Your task to perform on an android device: see creations saved in the google photos Image 0: 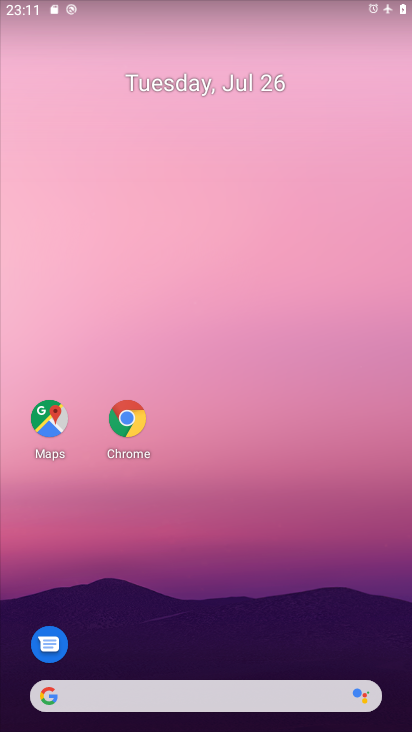
Step 0: drag from (243, 609) to (257, 218)
Your task to perform on an android device: see creations saved in the google photos Image 1: 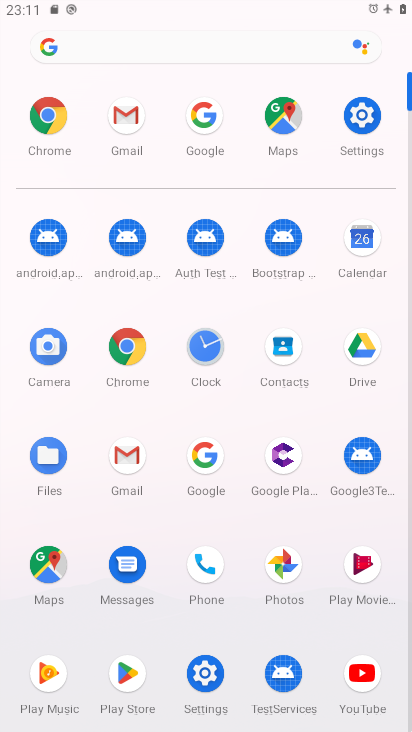
Step 1: click (278, 569)
Your task to perform on an android device: see creations saved in the google photos Image 2: 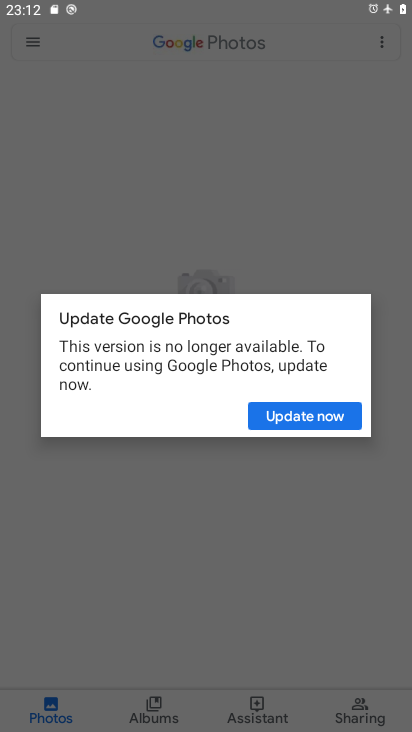
Step 2: click (321, 408)
Your task to perform on an android device: see creations saved in the google photos Image 3: 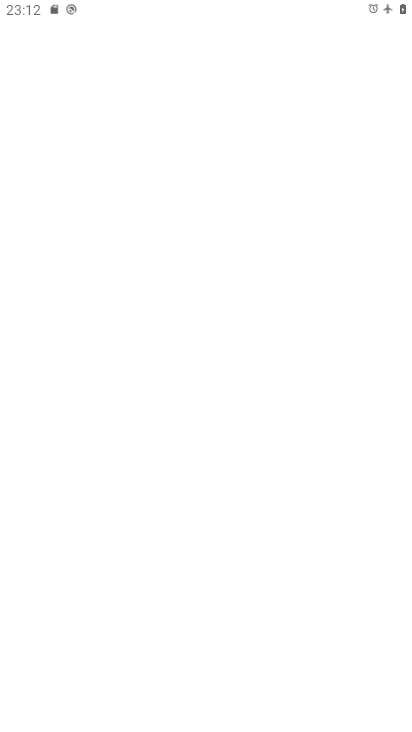
Step 3: task complete